Your task to perform on an android device: turn on priority inbox in the gmail app Image 0: 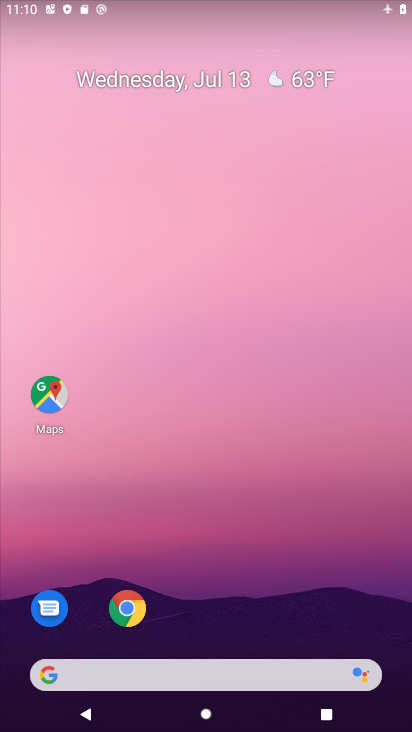
Step 0: press home button
Your task to perform on an android device: turn on priority inbox in the gmail app Image 1: 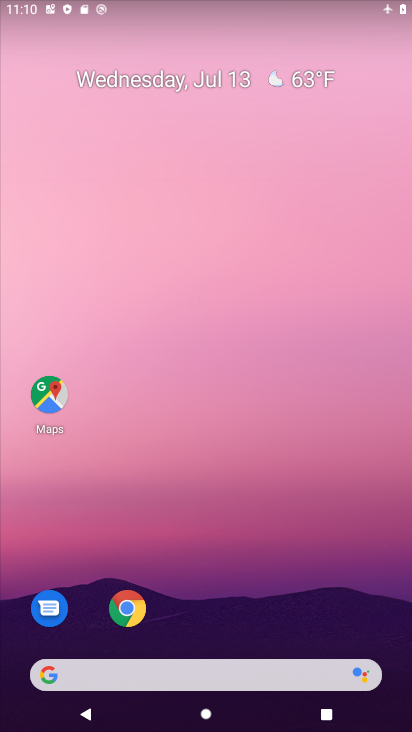
Step 1: drag from (288, 562) to (300, 75)
Your task to perform on an android device: turn on priority inbox in the gmail app Image 2: 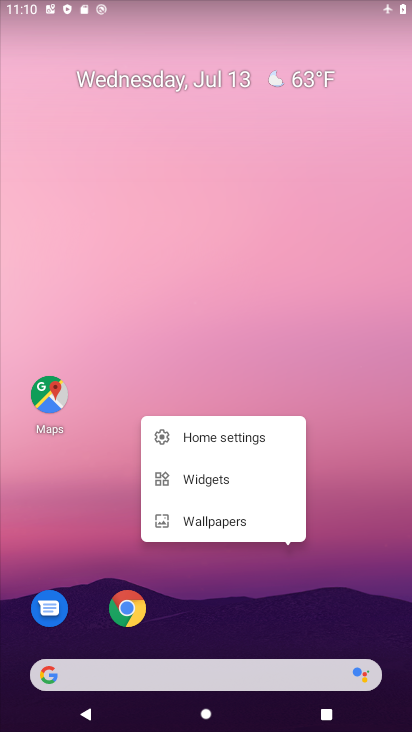
Step 2: click (372, 572)
Your task to perform on an android device: turn on priority inbox in the gmail app Image 3: 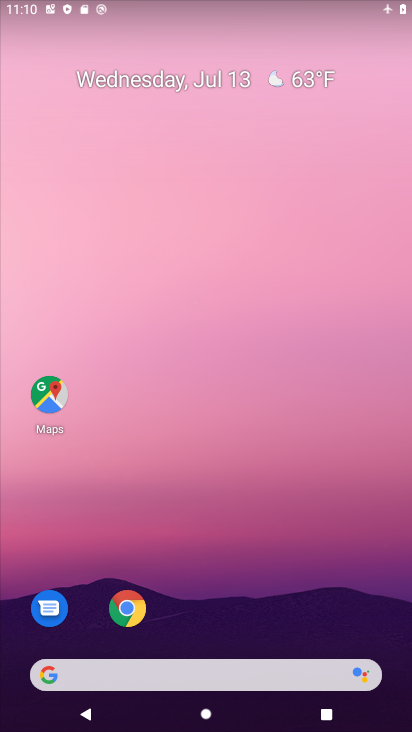
Step 3: drag from (284, 625) to (260, 7)
Your task to perform on an android device: turn on priority inbox in the gmail app Image 4: 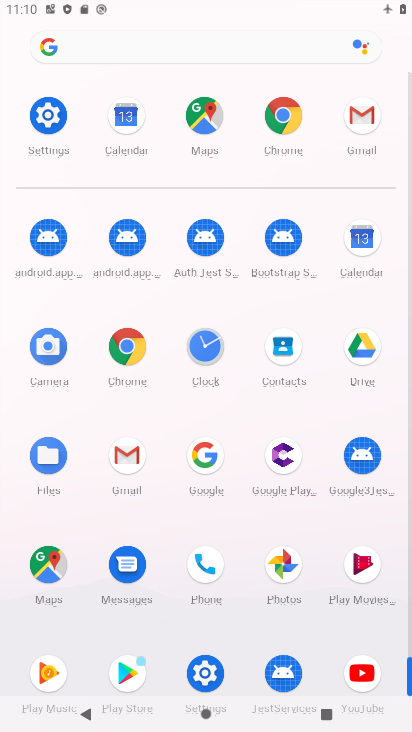
Step 4: drag from (195, 525) to (257, 2)
Your task to perform on an android device: turn on priority inbox in the gmail app Image 5: 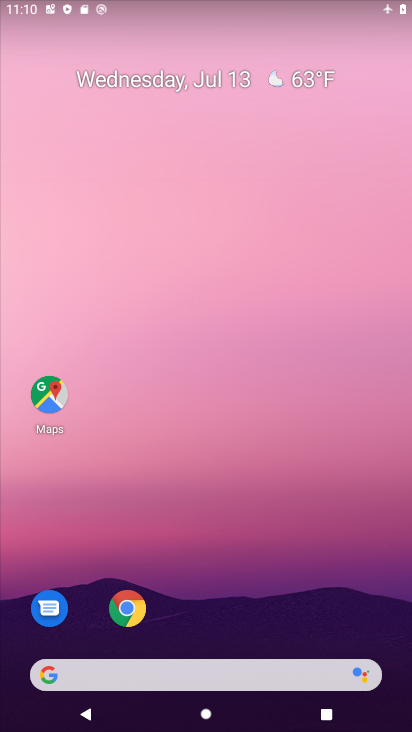
Step 5: click (366, 118)
Your task to perform on an android device: turn on priority inbox in the gmail app Image 6: 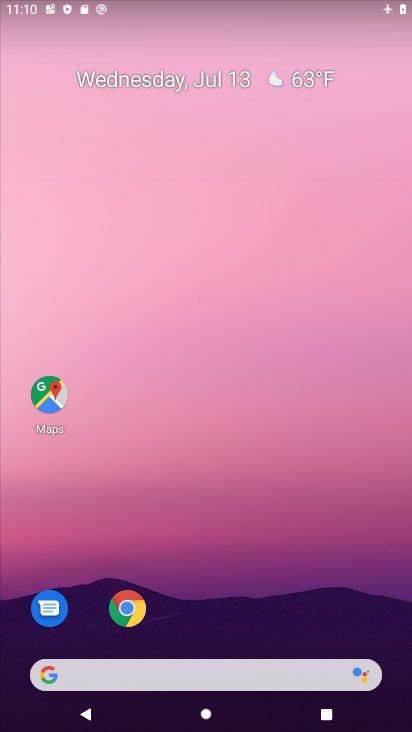
Step 6: drag from (260, 604) to (261, 27)
Your task to perform on an android device: turn on priority inbox in the gmail app Image 7: 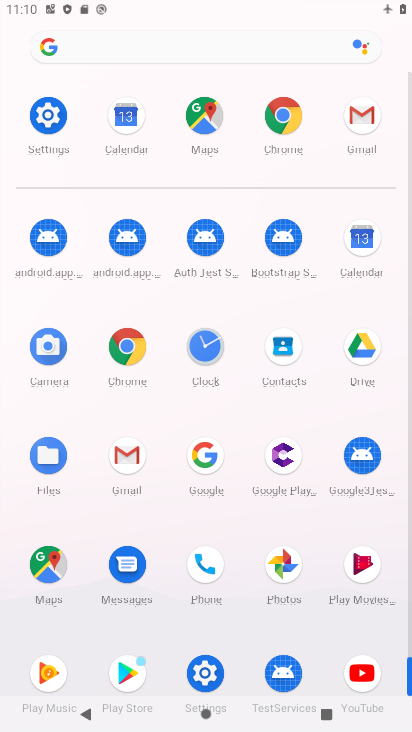
Step 7: click (365, 125)
Your task to perform on an android device: turn on priority inbox in the gmail app Image 8: 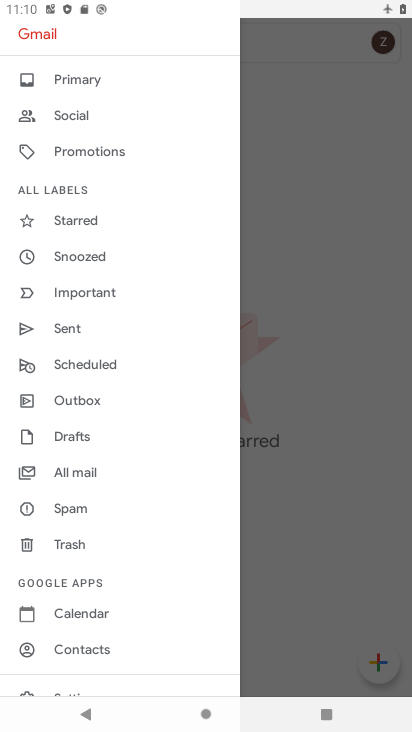
Step 8: drag from (103, 584) to (141, 181)
Your task to perform on an android device: turn on priority inbox in the gmail app Image 9: 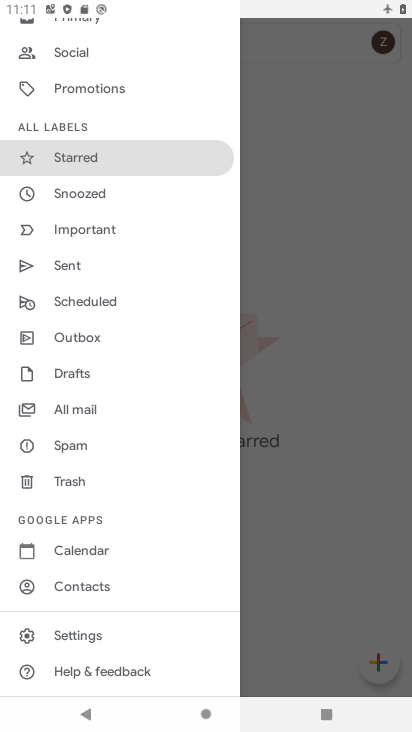
Step 9: click (86, 632)
Your task to perform on an android device: turn on priority inbox in the gmail app Image 10: 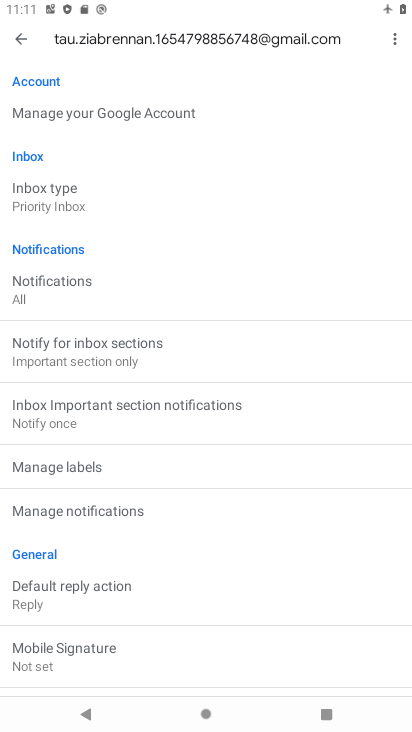
Step 10: task complete